Your task to perform on an android device: open app "Messenger Lite" (install if not already installed) Image 0: 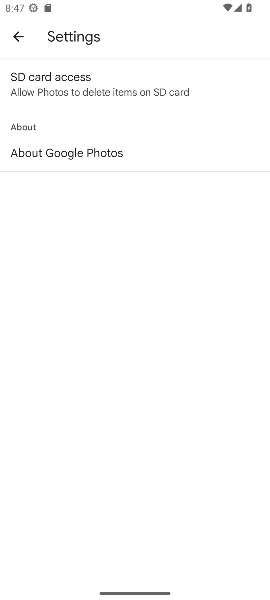
Step 0: drag from (82, 473) to (115, 161)
Your task to perform on an android device: open app "Messenger Lite" (install if not already installed) Image 1: 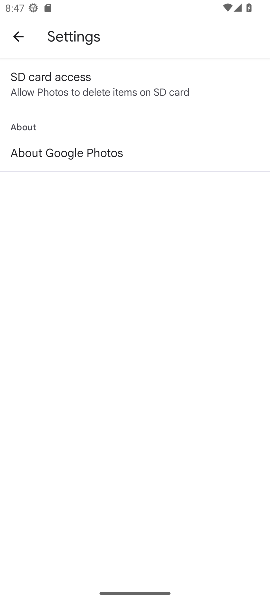
Step 1: drag from (109, 134) to (118, 504)
Your task to perform on an android device: open app "Messenger Lite" (install if not already installed) Image 2: 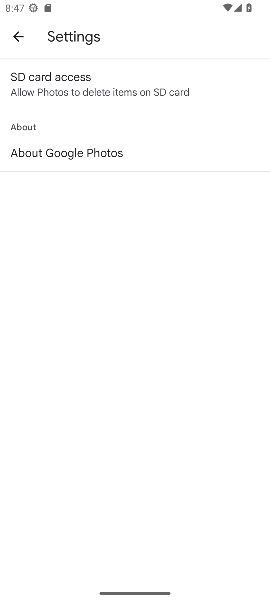
Step 2: press home button
Your task to perform on an android device: open app "Messenger Lite" (install if not already installed) Image 3: 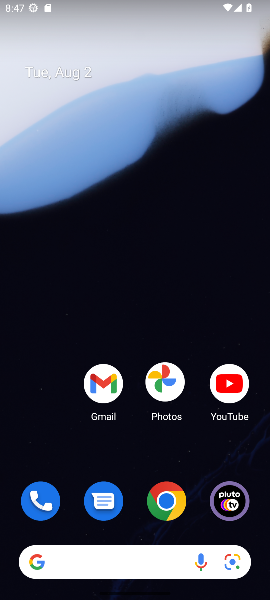
Step 3: drag from (100, 510) to (110, 169)
Your task to perform on an android device: open app "Messenger Lite" (install if not already installed) Image 4: 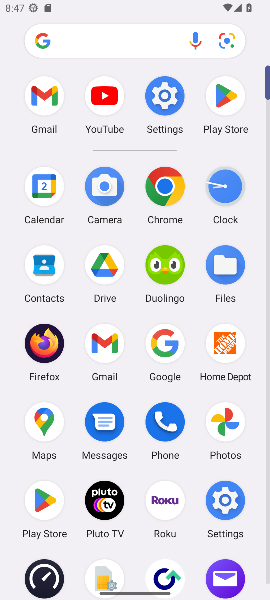
Step 4: click (224, 100)
Your task to perform on an android device: open app "Messenger Lite" (install if not already installed) Image 5: 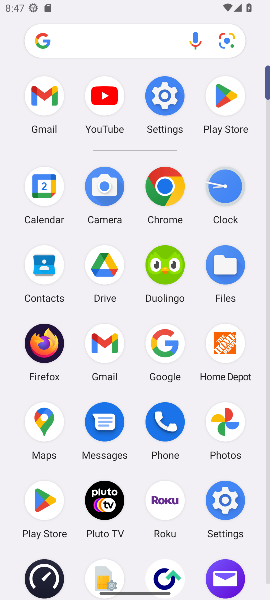
Step 5: click (224, 100)
Your task to perform on an android device: open app "Messenger Lite" (install if not already installed) Image 6: 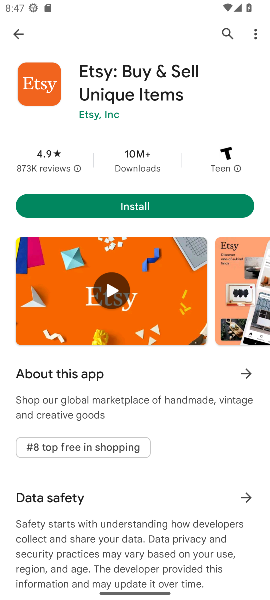
Step 6: click (225, 26)
Your task to perform on an android device: open app "Messenger Lite" (install if not already installed) Image 7: 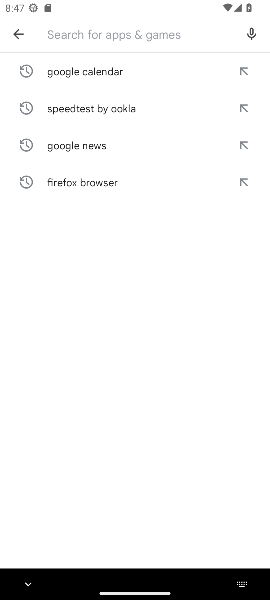
Step 7: type "Messenger Lite"
Your task to perform on an android device: open app "Messenger Lite" (install if not already installed) Image 8: 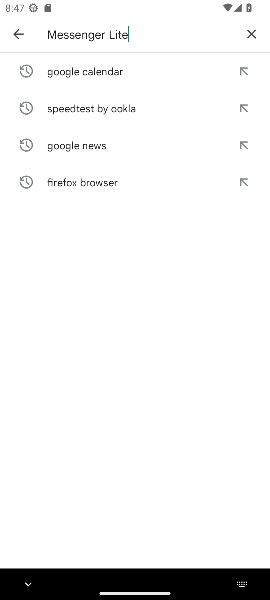
Step 8: type ""
Your task to perform on an android device: open app "Messenger Lite" (install if not already installed) Image 9: 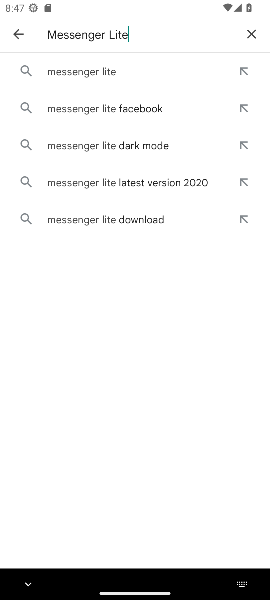
Step 9: click (57, 67)
Your task to perform on an android device: open app "Messenger Lite" (install if not already installed) Image 10: 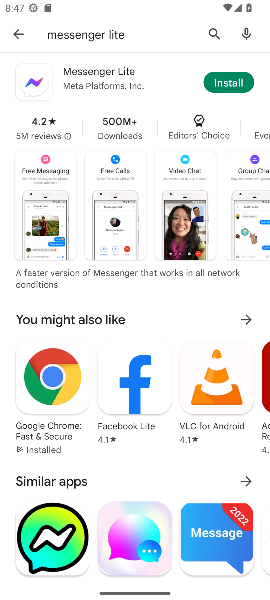
Step 10: click (100, 85)
Your task to perform on an android device: open app "Messenger Lite" (install if not already installed) Image 11: 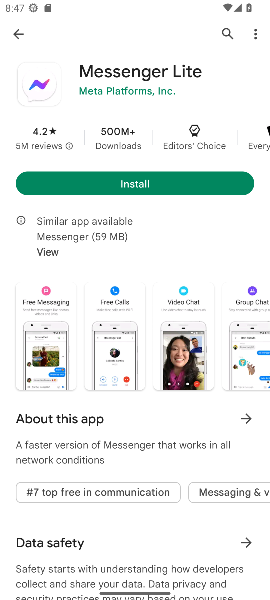
Step 11: drag from (149, 98) to (165, 339)
Your task to perform on an android device: open app "Messenger Lite" (install if not already installed) Image 12: 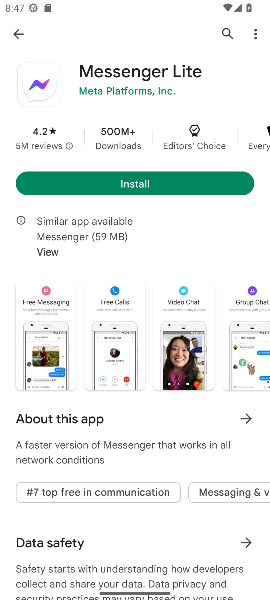
Step 12: click (98, 189)
Your task to perform on an android device: open app "Messenger Lite" (install if not already installed) Image 13: 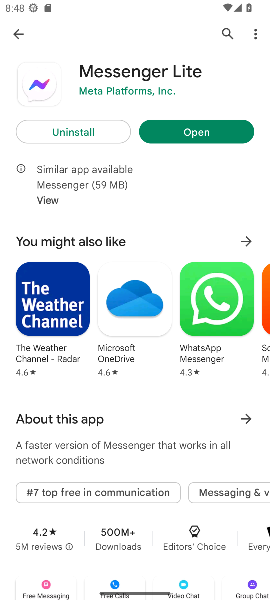
Step 13: click (204, 133)
Your task to perform on an android device: open app "Messenger Lite" (install if not already installed) Image 14: 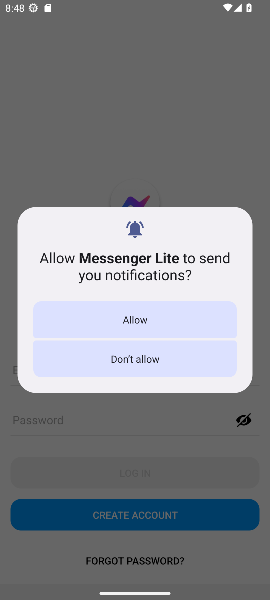
Step 14: task complete